Your task to perform on an android device: turn off airplane mode Image 0: 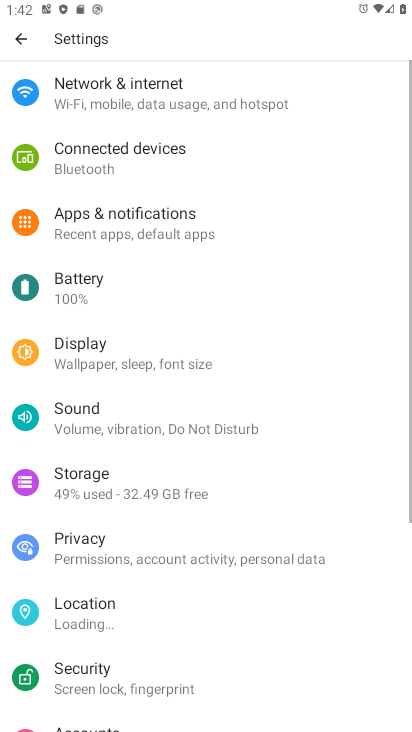
Step 0: press home button
Your task to perform on an android device: turn off airplane mode Image 1: 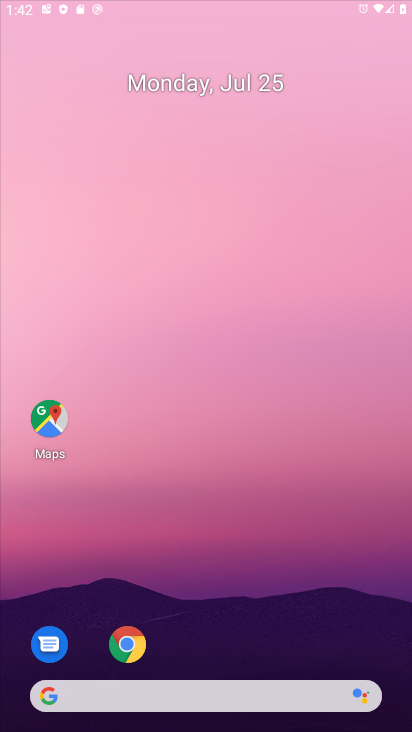
Step 1: task complete